Your task to perform on an android device: Set the phone to "Do not disturb". Image 0: 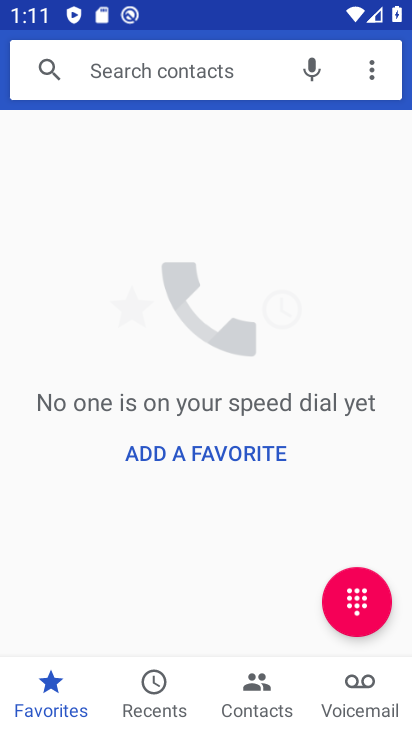
Step 0: drag from (173, 7) to (90, 712)
Your task to perform on an android device: Set the phone to "Do not disturb". Image 1: 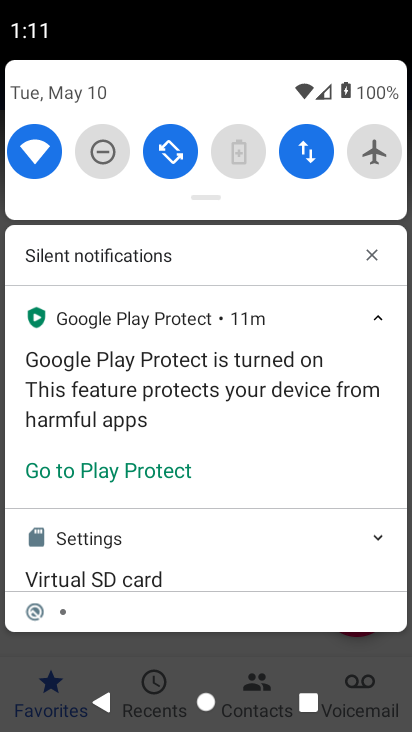
Step 1: click (102, 152)
Your task to perform on an android device: Set the phone to "Do not disturb". Image 2: 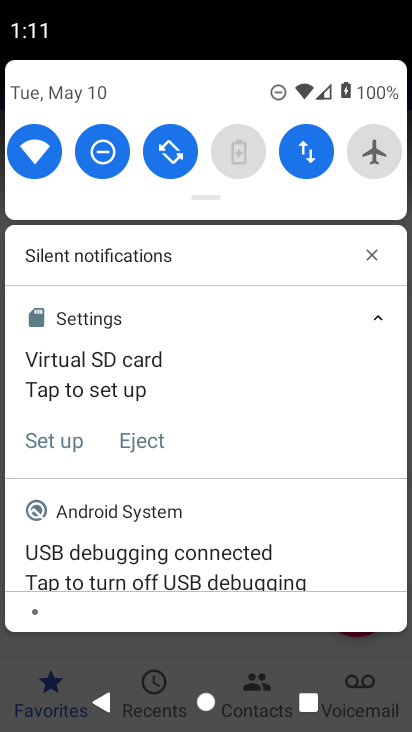
Step 2: task complete